Your task to perform on an android device: toggle wifi Image 0: 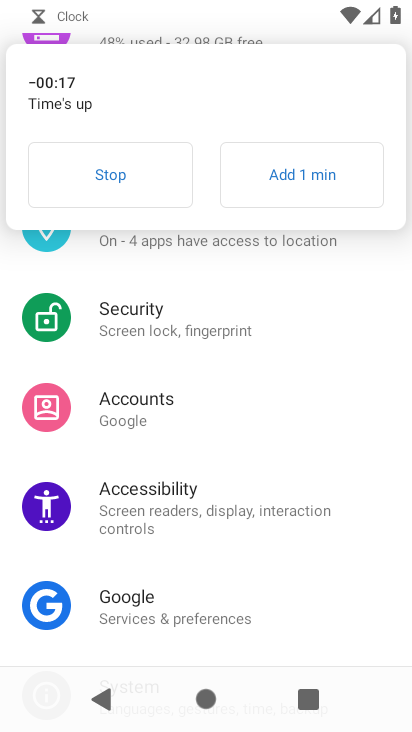
Step 0: click (130, 183)
Your task to perform on an android device: toggle wifi Image 1: 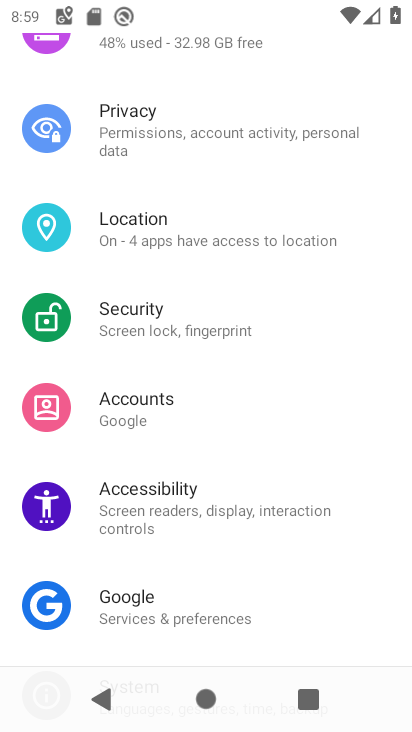
Step 1: drag from (193, 101) to (105, 636)
Your task to perform on an android device: toggle wifi Image 2: 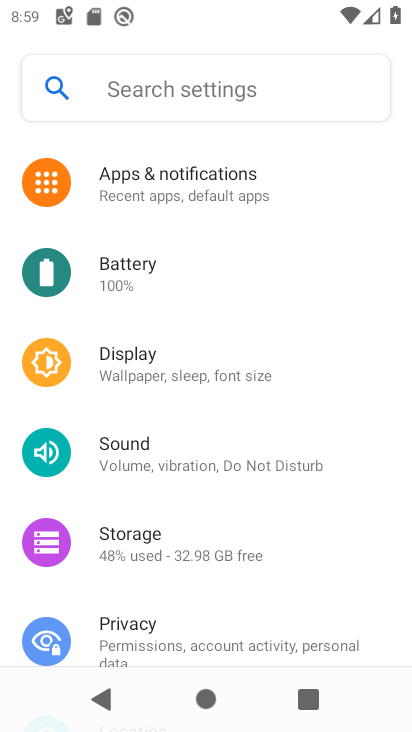
Step 2: drag from (196, 184) to (109, 729)
Your task to perform on an android device: toggle wifi Image 3: 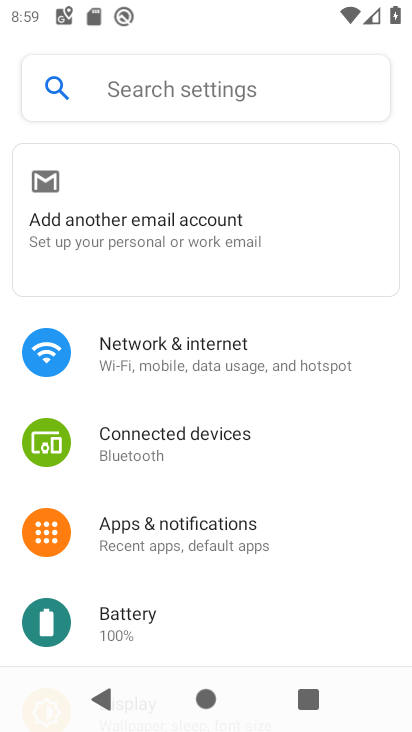
Step 3: click (220, 353)
Your task to perform on an android device: toggle wifi Image 4: 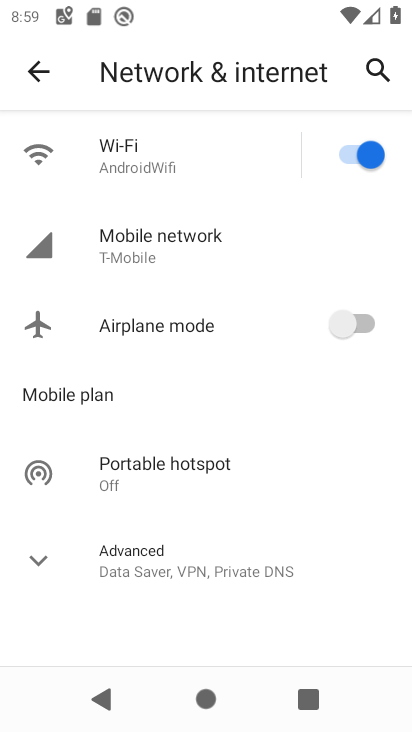
Step 4: click (254, 352)
Your task to perform on an android device: toggle wifi Image 5: 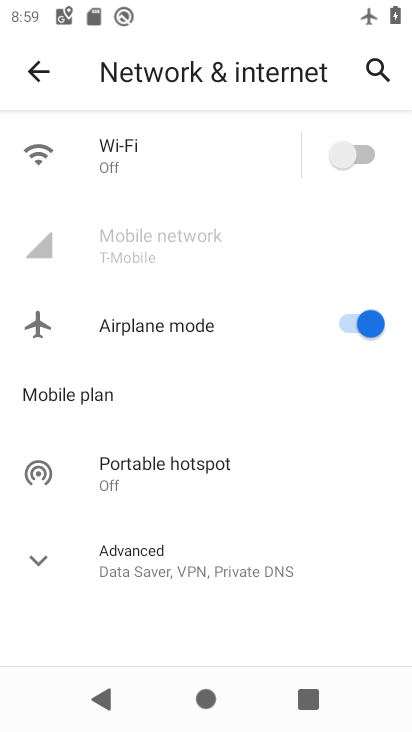
Step 5: click (368, 156)
Your task to perform on an android device: toggle wifi Image 6: 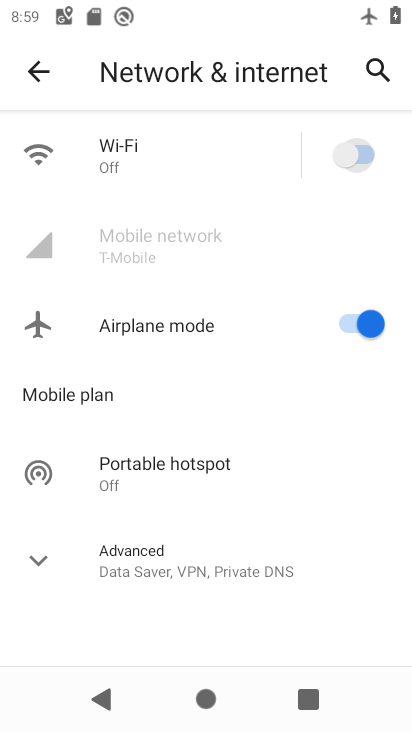
Step 6: click (368, 156)
Your task to perform on an android device: toggle wifi Image 7: 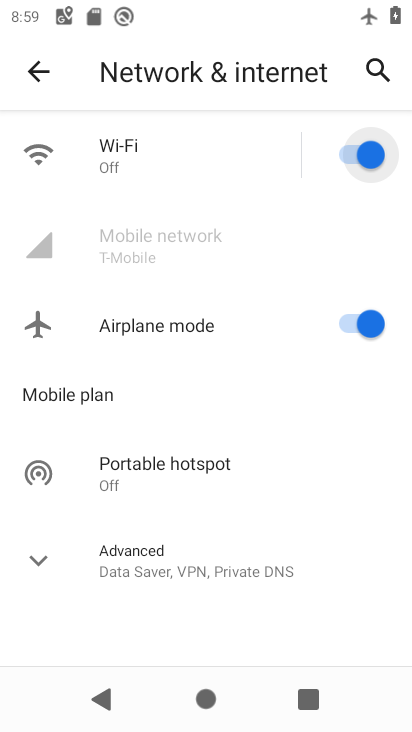
Step 7: click (368, 156)
Your task to perform on an android device: toggle wifi Image 8: 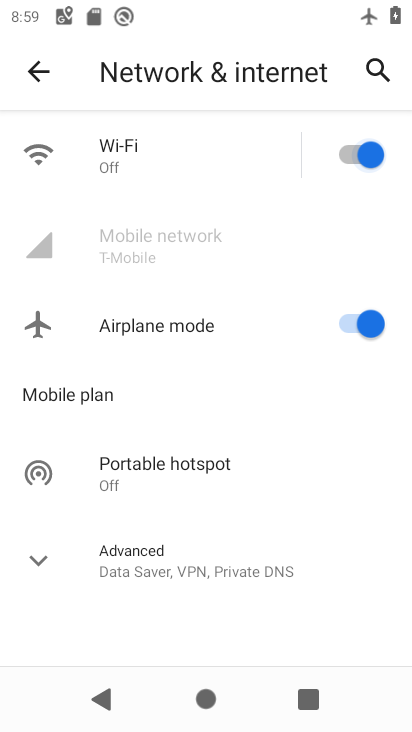
Step 8: click (368, 156)
Your task to perform on an android device: toggle wifi Image 9: 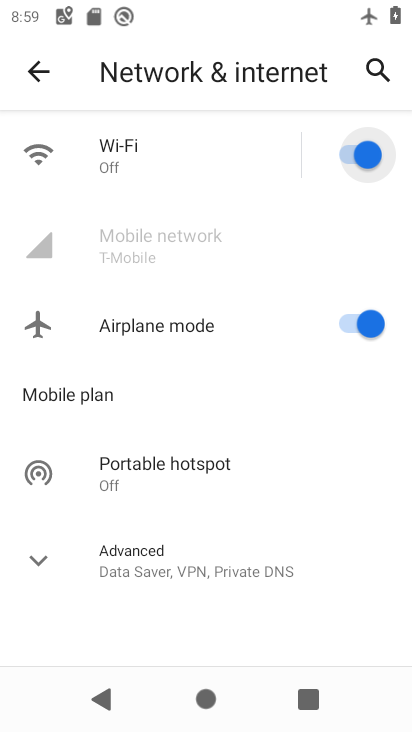
Step 9: click (368, 156)
Your task to perform on an android device: toggle wifi Image 10: 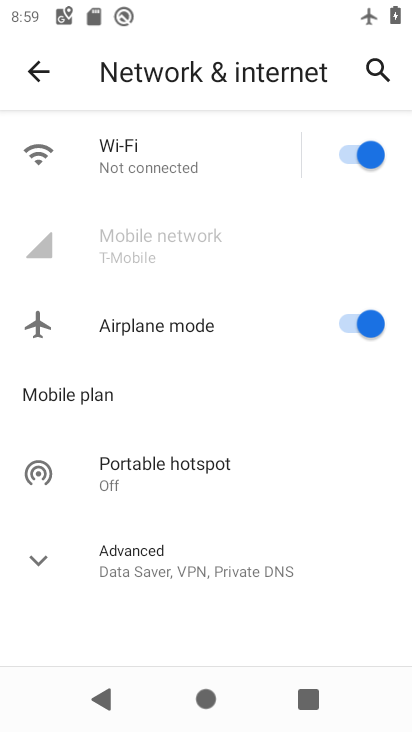
Step 10: task complete